Your task to perform on an android device: Open Yahoo.com Image 0: 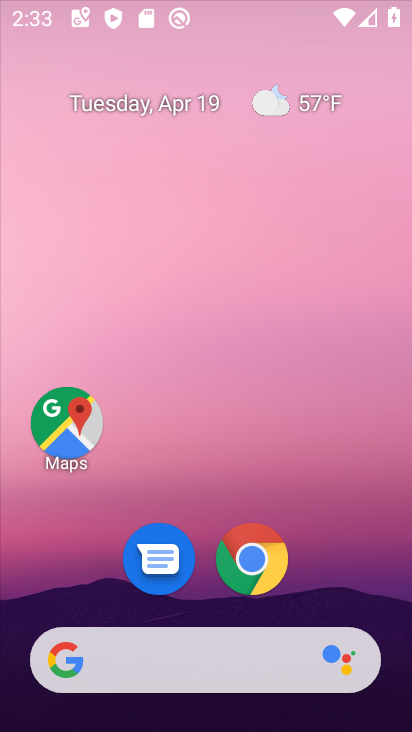
Step 0: drag from (211, 600) to (247, 61)
Your task to perform on an android device: Open Yahoo.com Image 1: 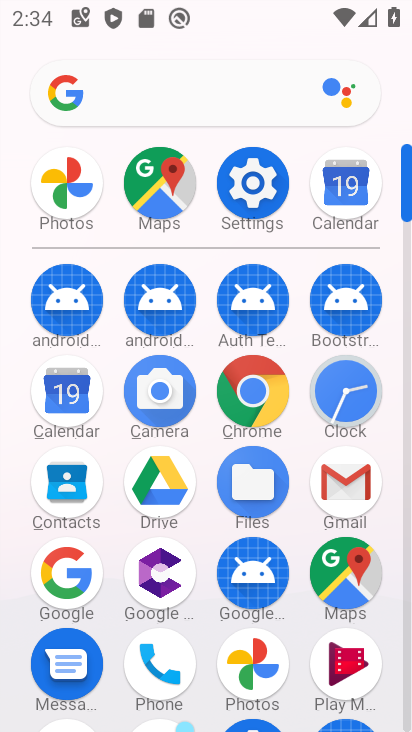
Step 1: click (252, 382)
Your task to perform on an android device: Open Yahoo.com Image 2: 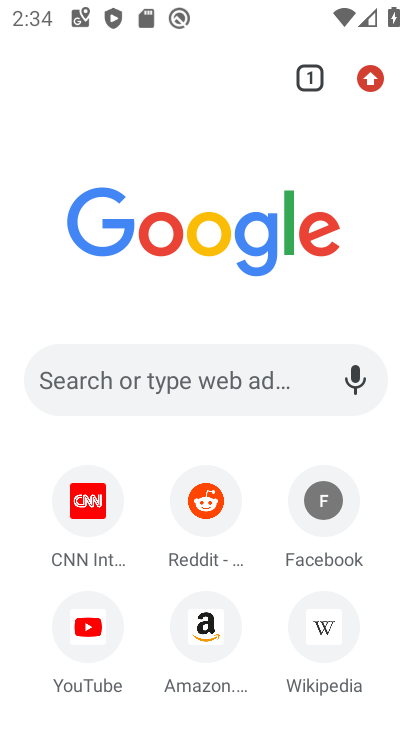
Step 2: click (189, 365)
Your task to perform on an android device: Open Yahoo.com Image 3: 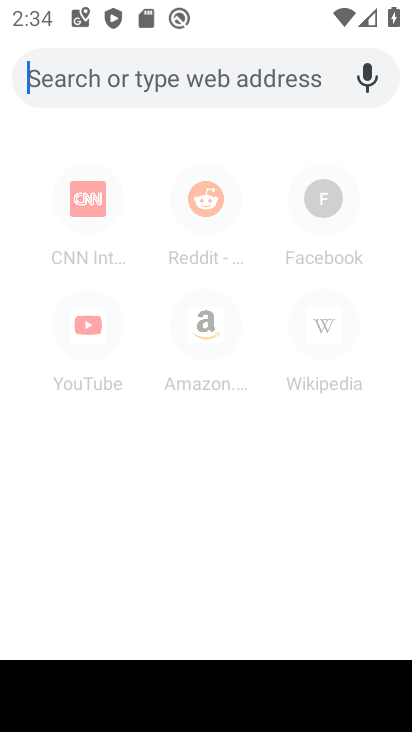
Step 3: type "yahoo.com"
Your task to perform on an android device: Open Yahoo.com Image 4: 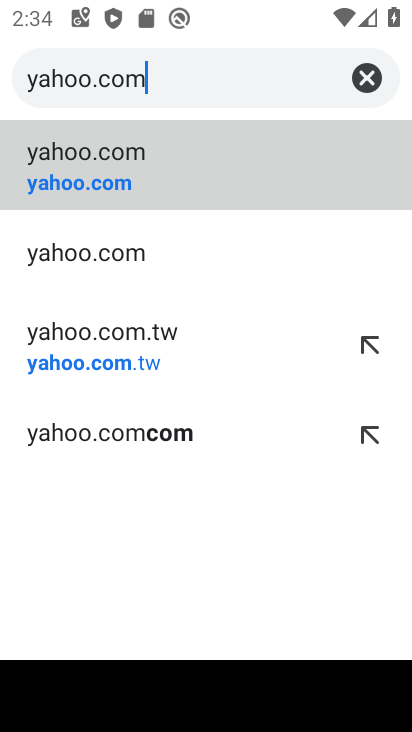
Step 4: click (116, 176)
Your task to perform on an android device: Open Yahoo.com Image 5: 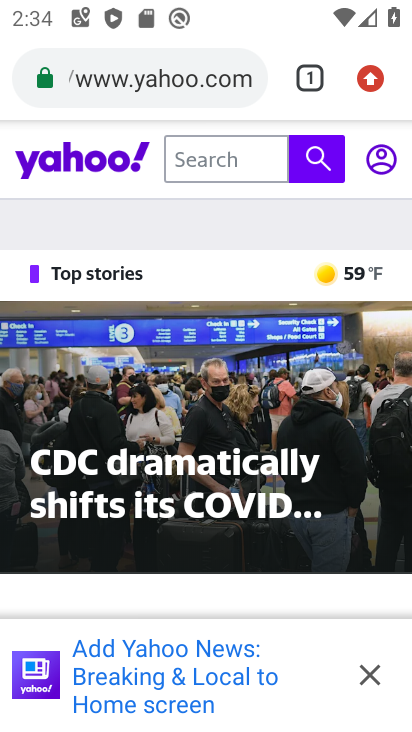
Step 5: task complete